Your task to perform on an android device: See recent photos Image 0: 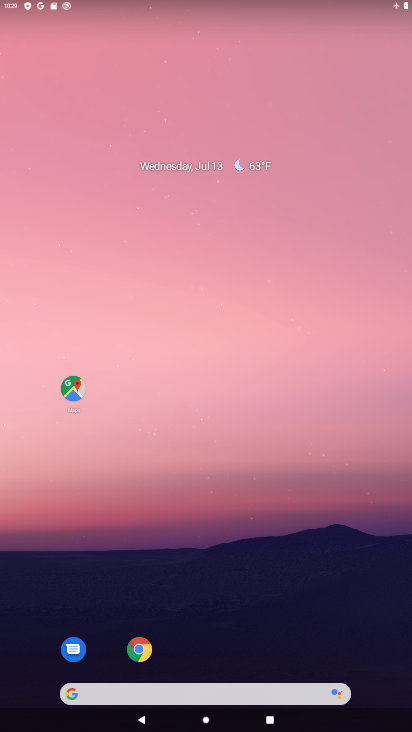
Step 0: drag from (239, 652) to (254, 276)
Your task to perform on an android device: See recent photos Image 1: 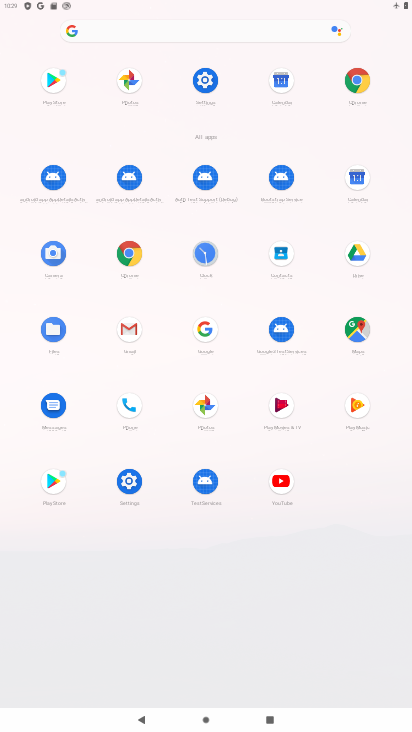
Step 1: click (190, 394)
Your task to perform on an android device: See recent photos Image 2: 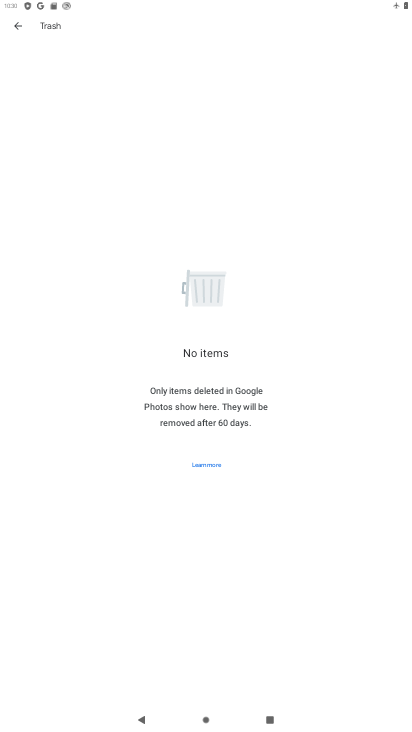
Step 2: task complete